Your task to perform on an android device: turn on improve location accuracy Image 0: 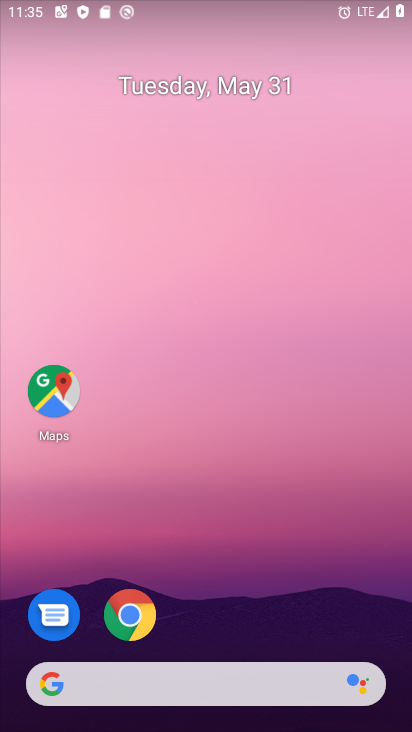
Step 0: drag from (274, 582) to (212, 73)
Your task to perform on an android device: turn on improve location accuracy Image 1: 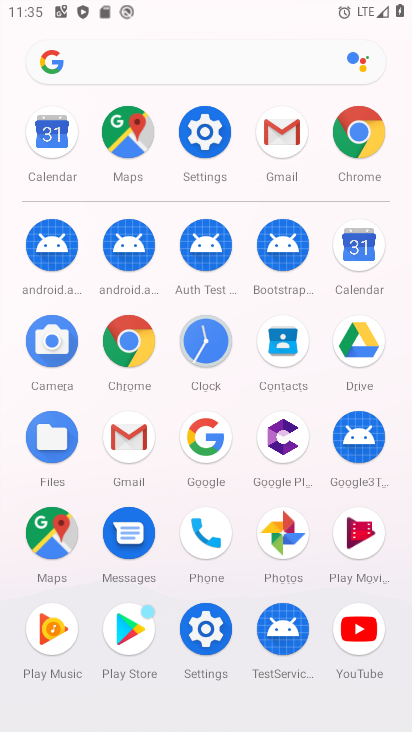
Step 1: click (213, 124)
Your task to perform on an android device: turn on improve location accuracy Image 2: 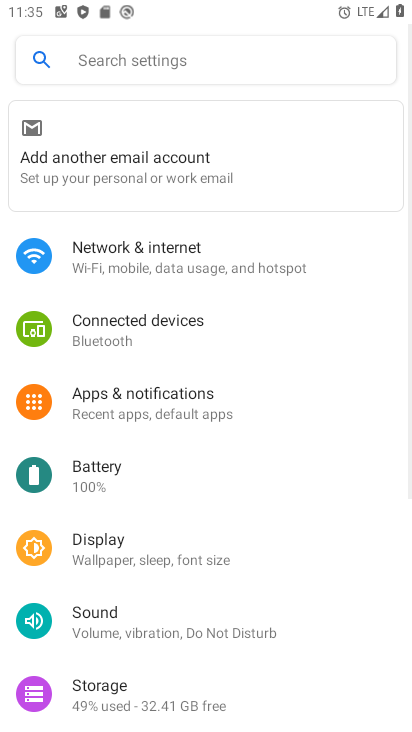
Step 2: drag from (198, 607) to (280, 202)
Your task to perform on an android device: turn on improve location accuracy Image 3: 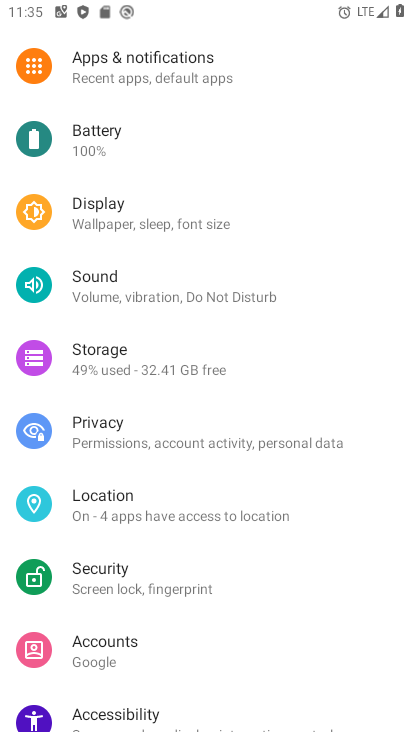
Step 3: click (178, 510)
Your task to perform on an android device: turn on improve location accuracy Image 4: 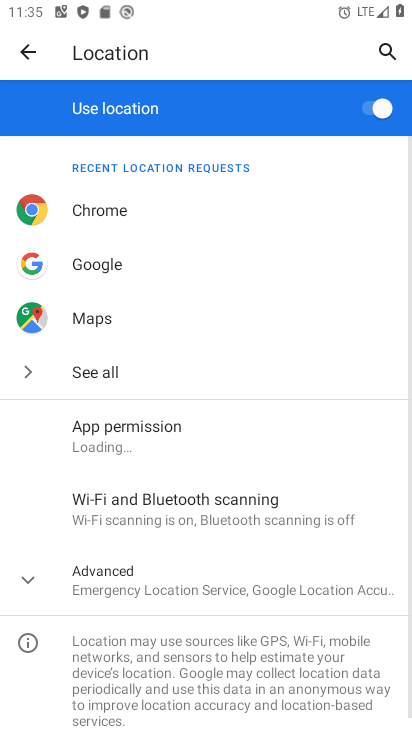
Step 4: click (137, 583)
Your task to perform on an android device: turn on improve location accuracy Image 5: 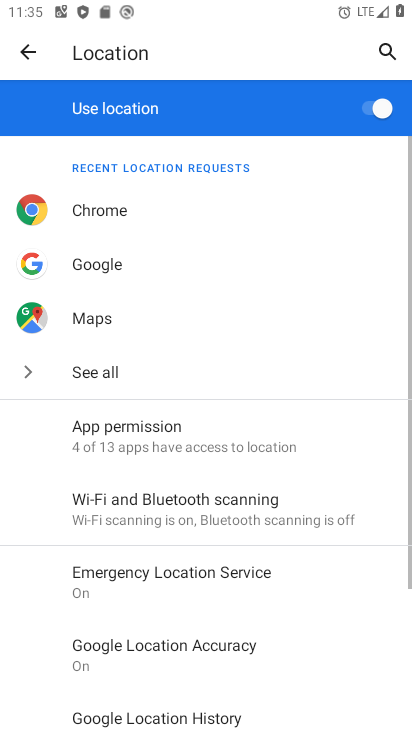
Step 5: drag from (162, 628) to (161, 291)
Your task to perform on an android device: turn on improve location accuracy Image 6: 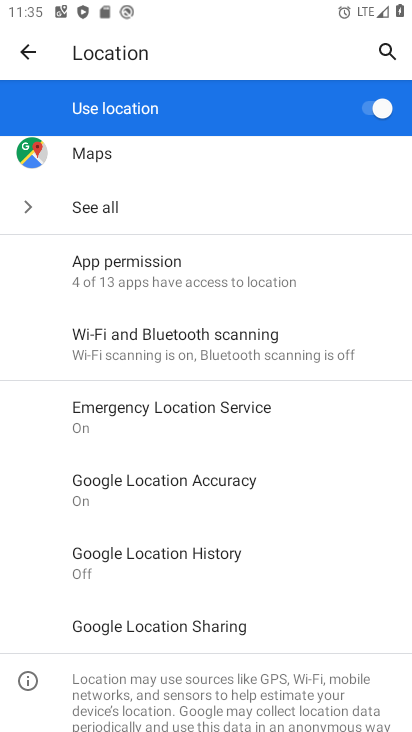
Step 6: click (140, 494)
Your task to perform on an android device: turn on improve location accuracy Image 7: 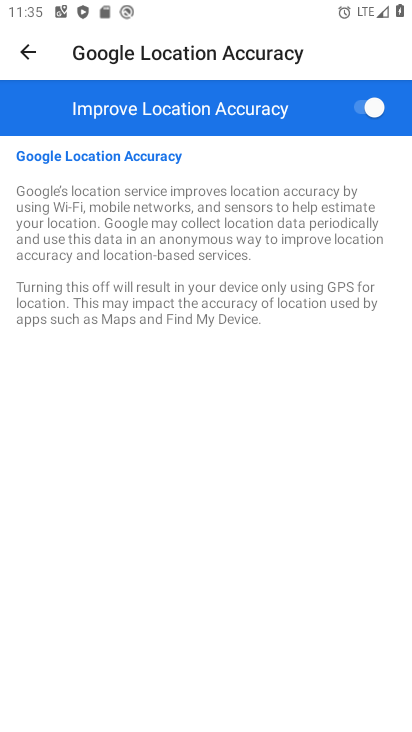
Step 7: task complete